Your task to perform on an android device: Open settings Image 0: 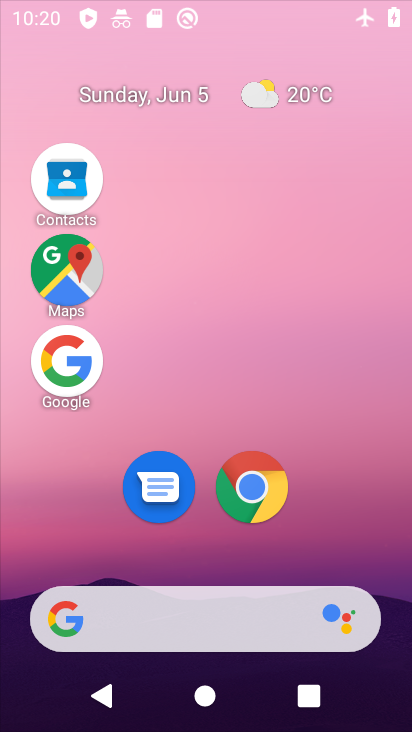
Step 0: press home button
Your task to perform on an android device: Open settings Image 1: 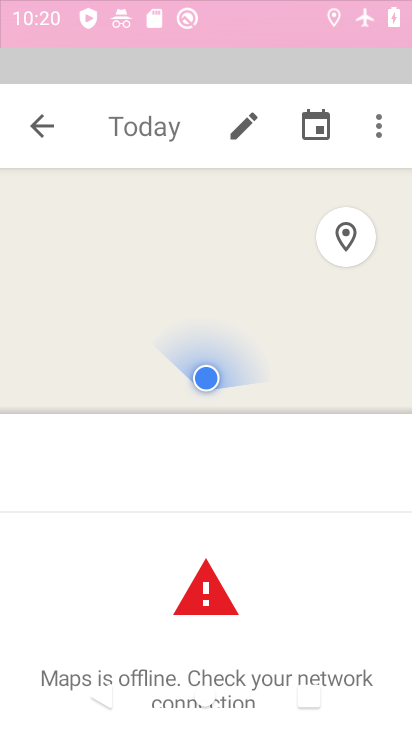
Step 1: drag from (213, 567) to (295, 181)
Your task to perform on an android device: Open settings Image 2: 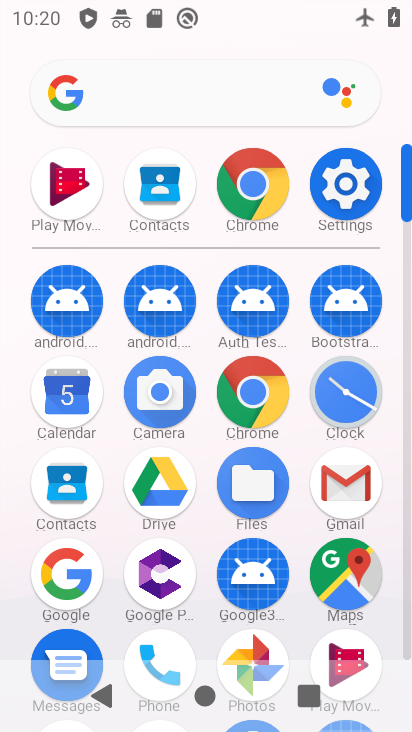
Step 2: drag from (295, 505) to (329, 24)
Your task to perform on an android device: Open settings Image 3: 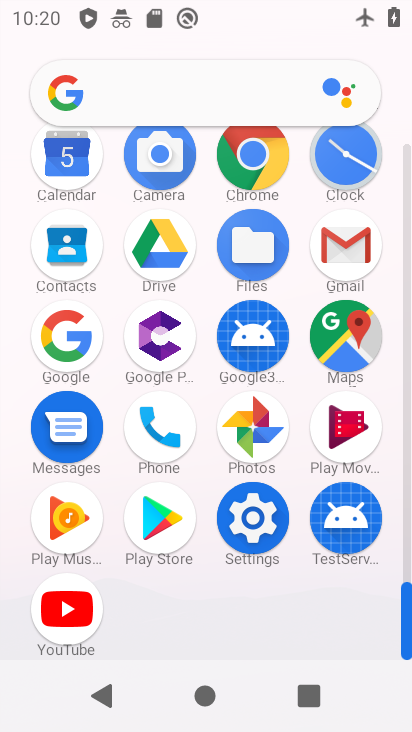
Step 3: click (250, 557)
Your task to perform on an android device: Open settings Image 4: 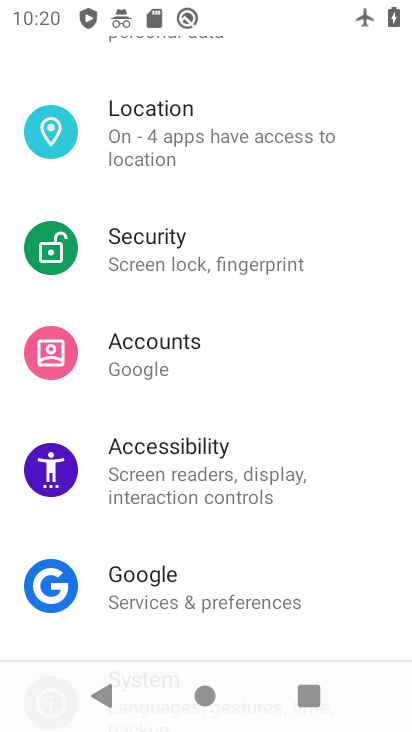
Step 4: task complete